Your task to perform on an android device: Go to Reddit.com Image 0: 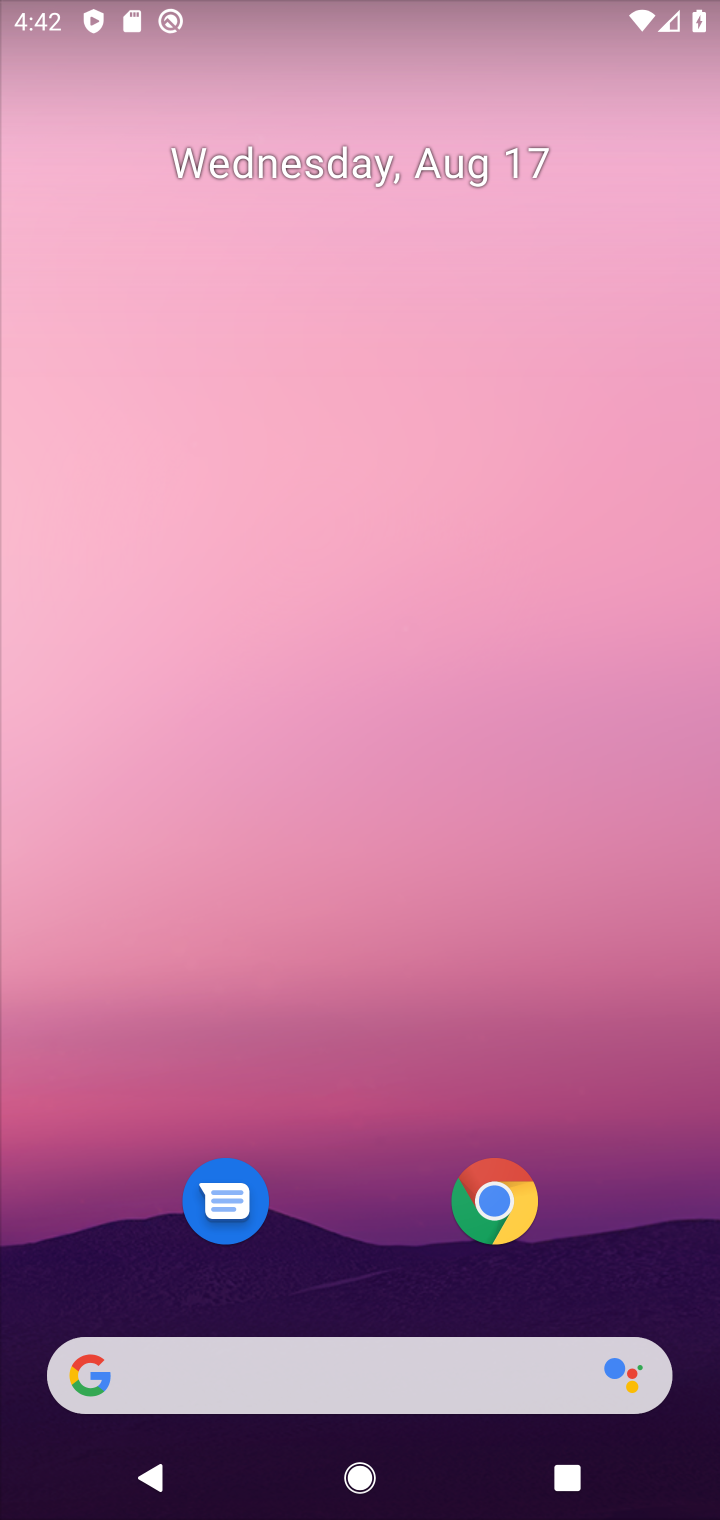
Step 0: press home button
Your task to perform on an android device: Go to Reddit.com Image 1: 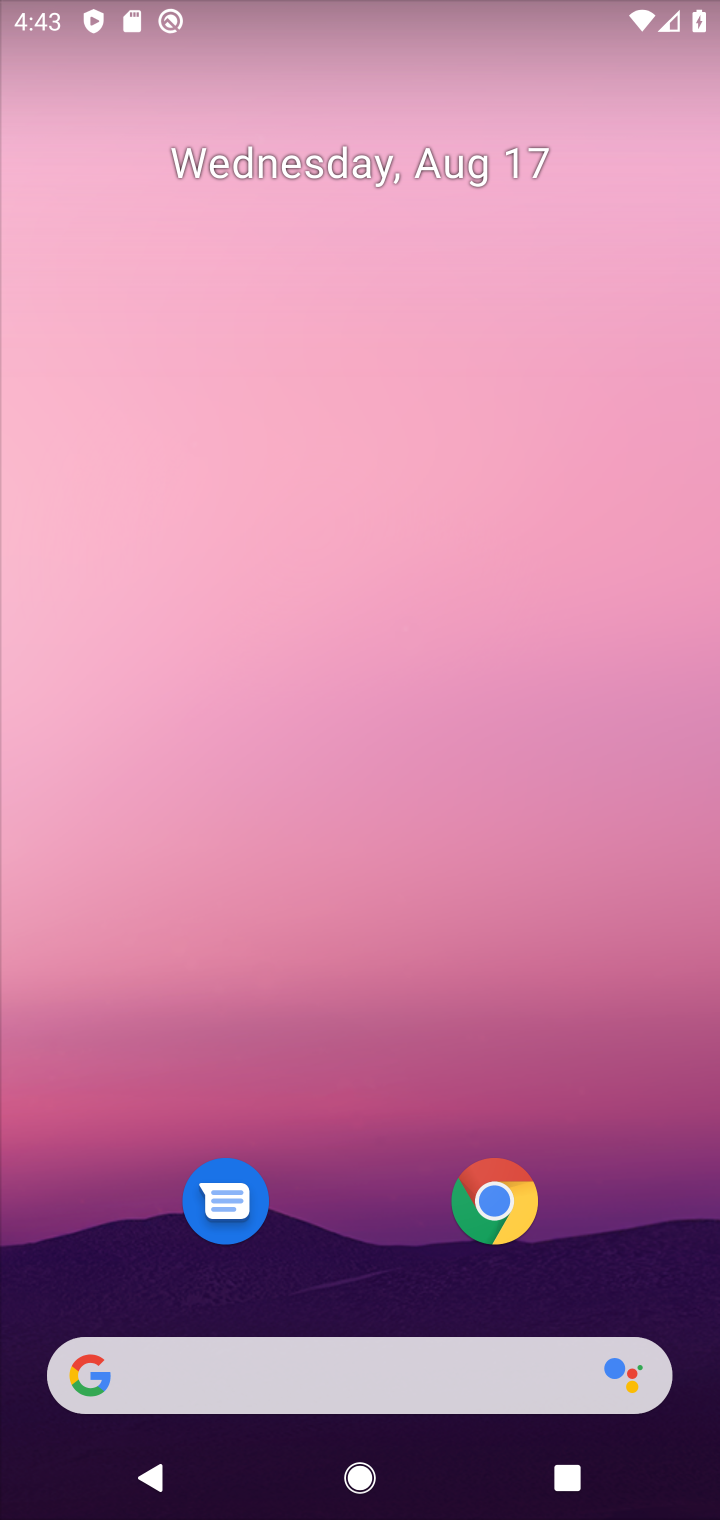
Step 1: click (99, 1373)
Your task to perform on an android device: Go to Reddit.com Image 2: 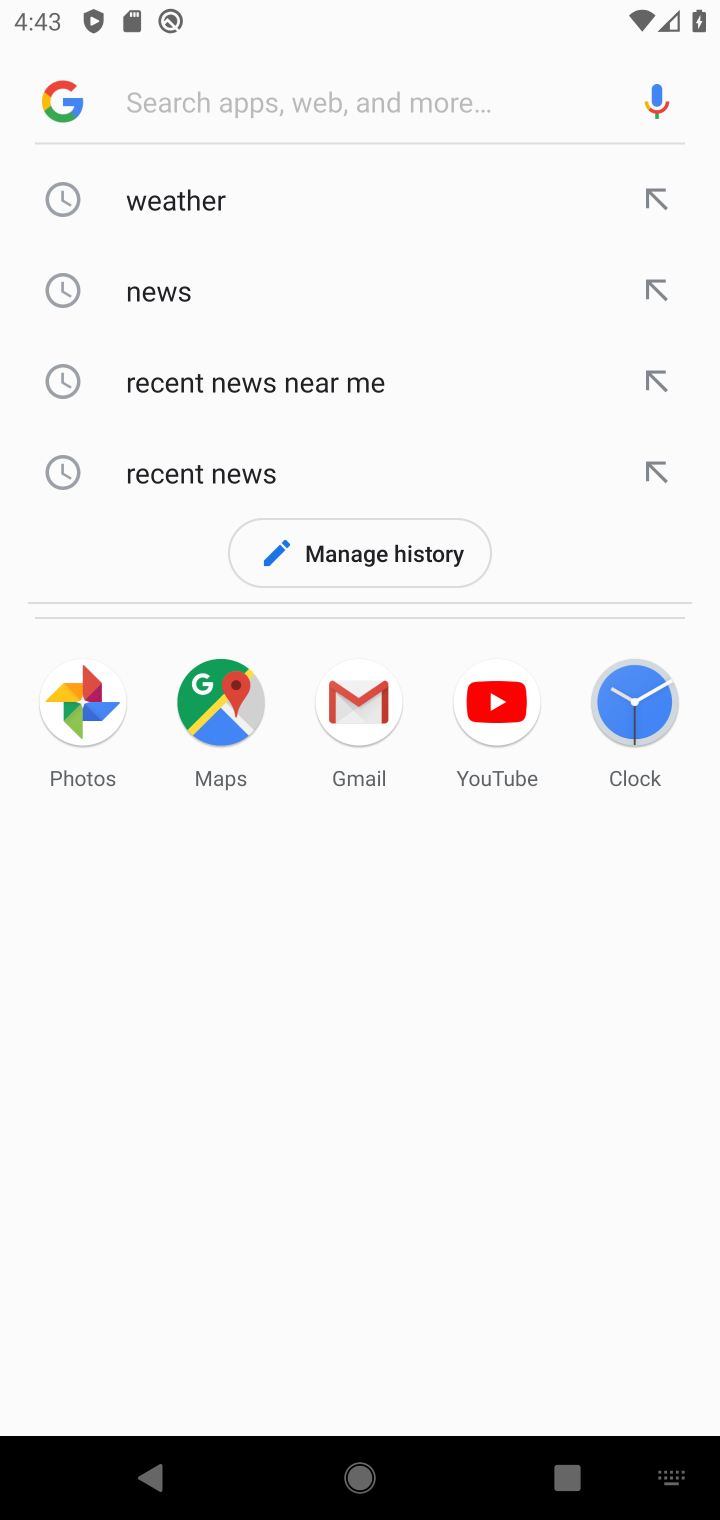
Step 2: press enter
Your task to perform on an android device: Go to Reddit.com Image 3: 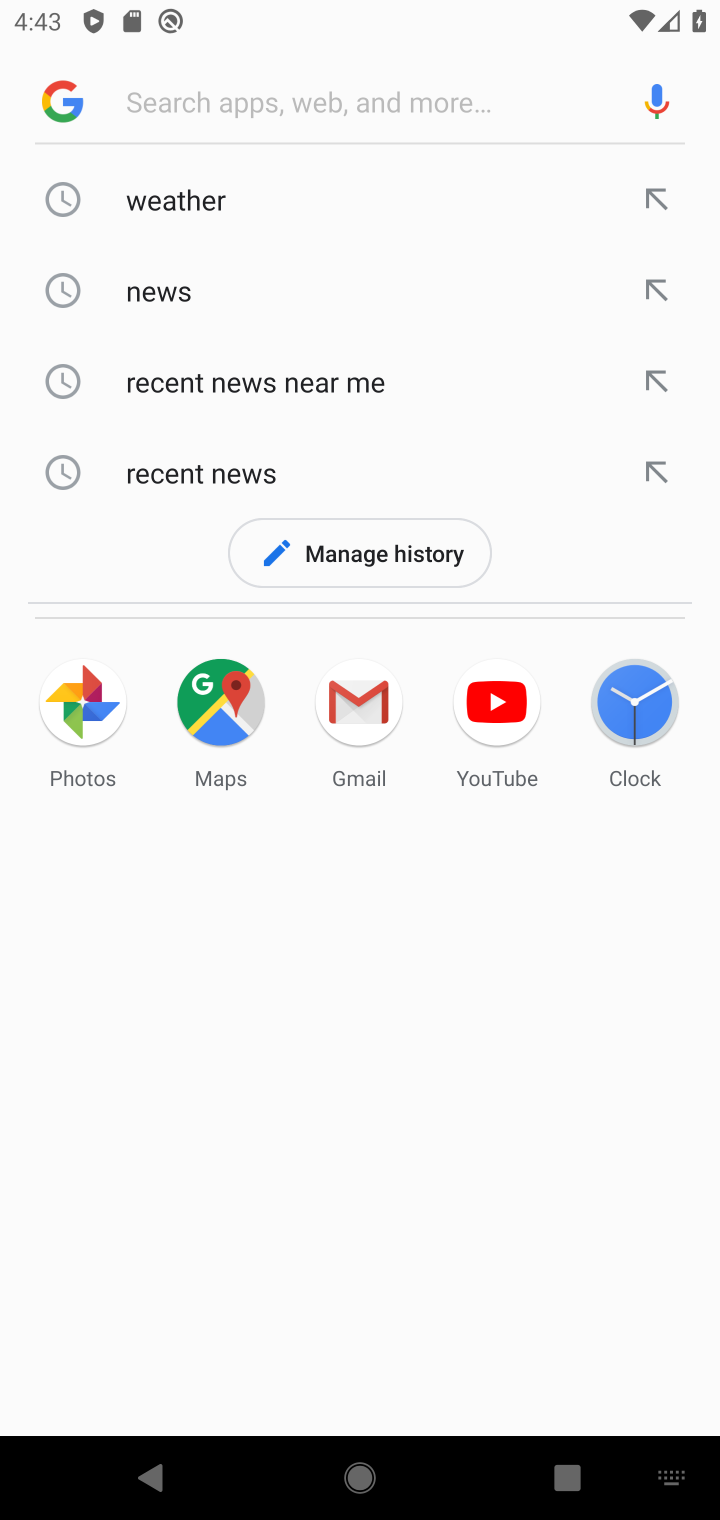
Step 3: type "Reddit.com"
Your task to perform on an android device: Go to Reddit.com Image 4: 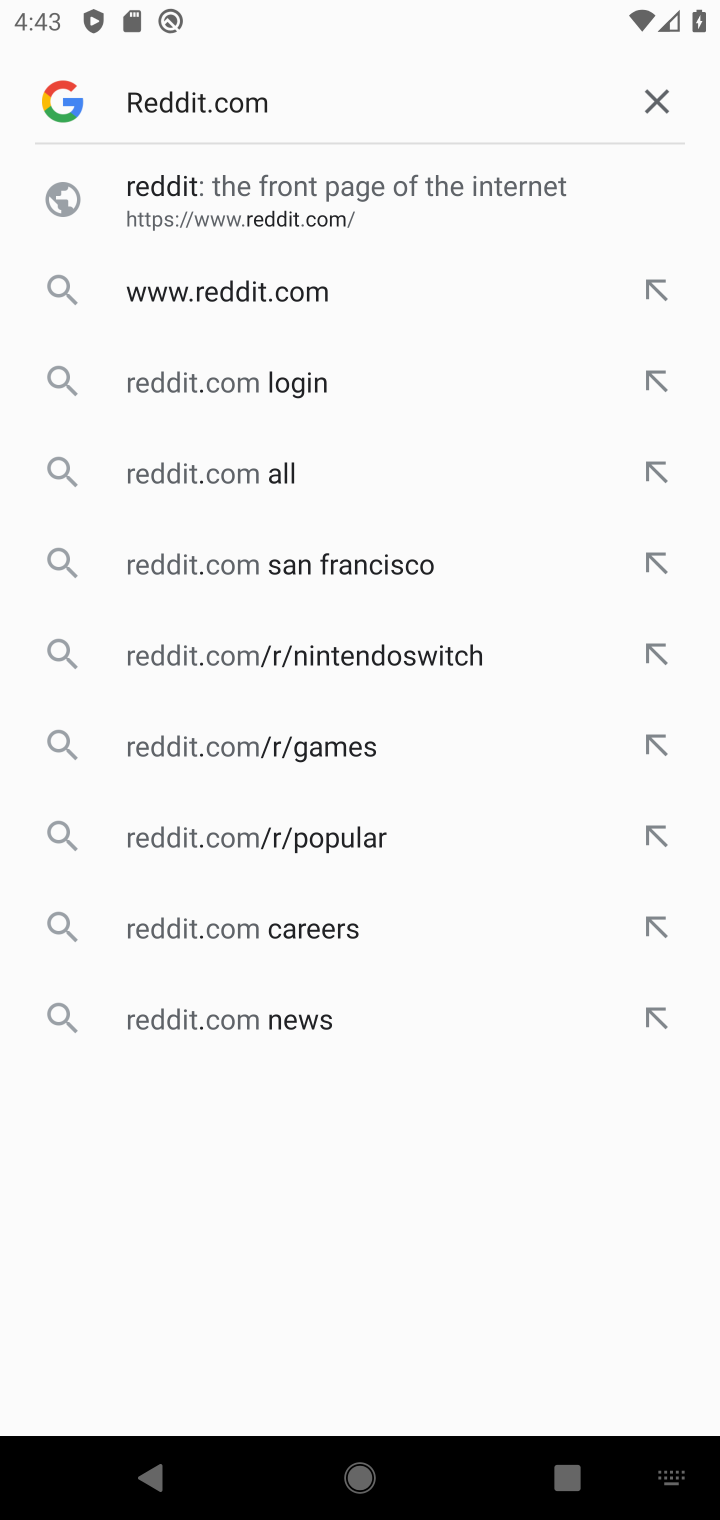
Step 4: press enter
Your task to perform on an android device: Go to Reddit.com Image 5: 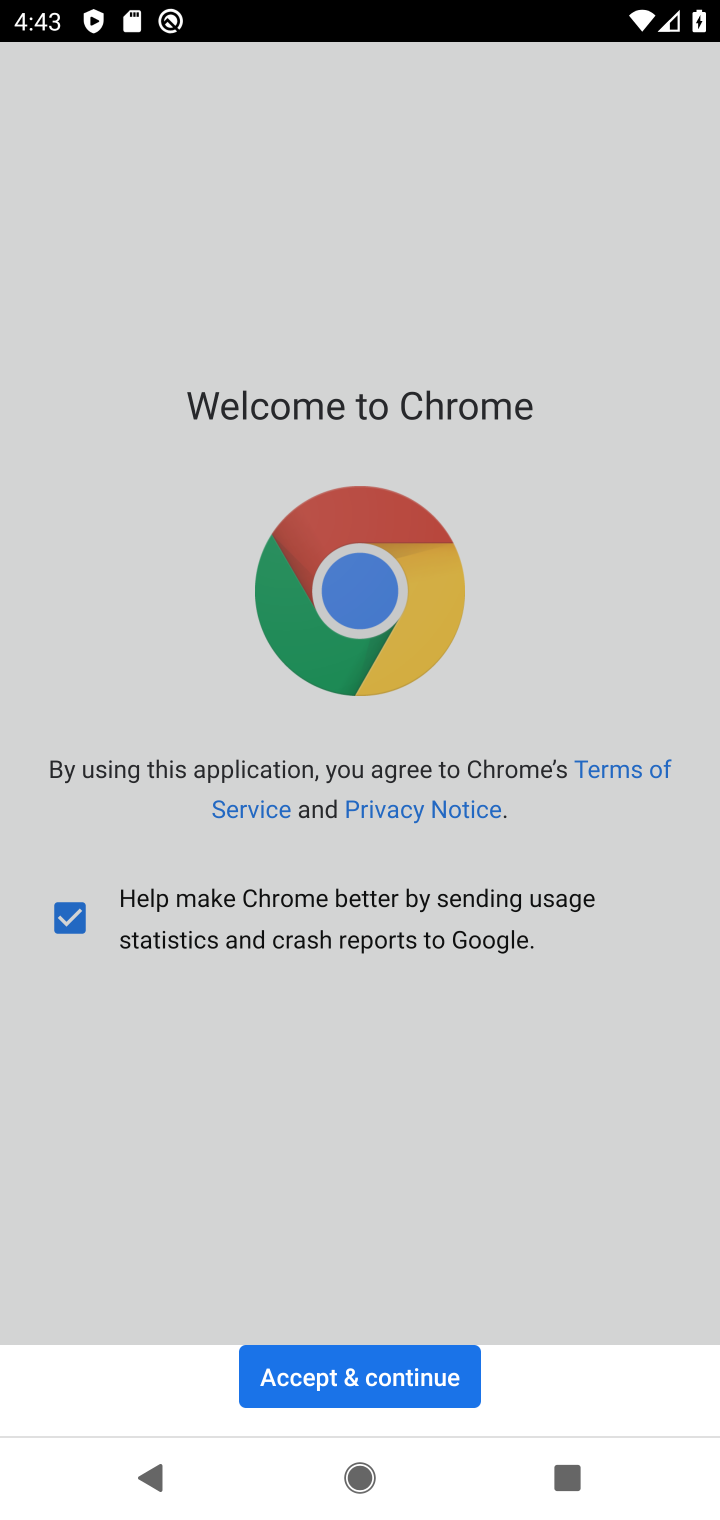
Step 5: click (377, 1384)
Your task to perform on an android device: Go to Reddit.com Image 6: 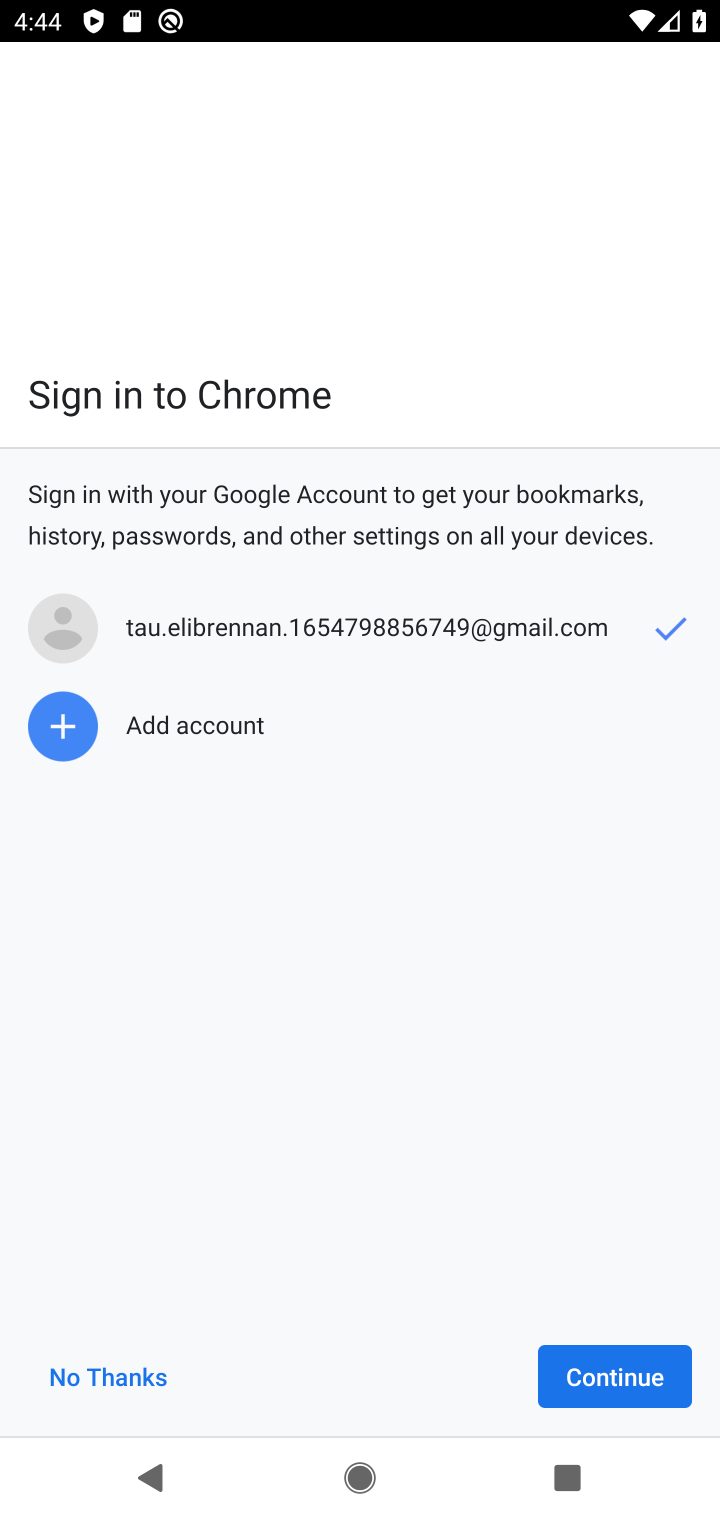
Step 6: click (600, 1397)
Your task to perform on an android device: Go to Reddit.com Image 7: 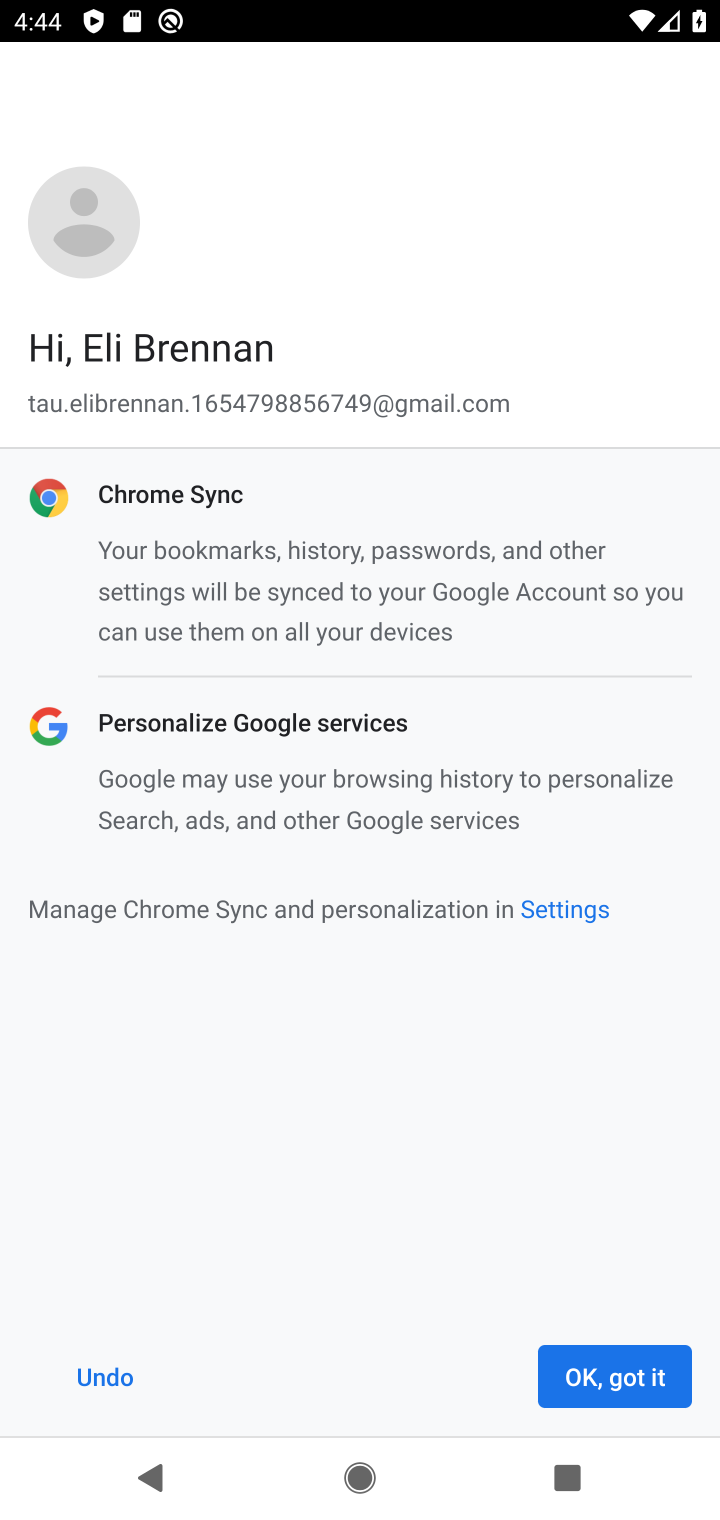
Step 7: click (598, 1398)
Your task to perform on an android device: Go to Reddit.com Image 8: 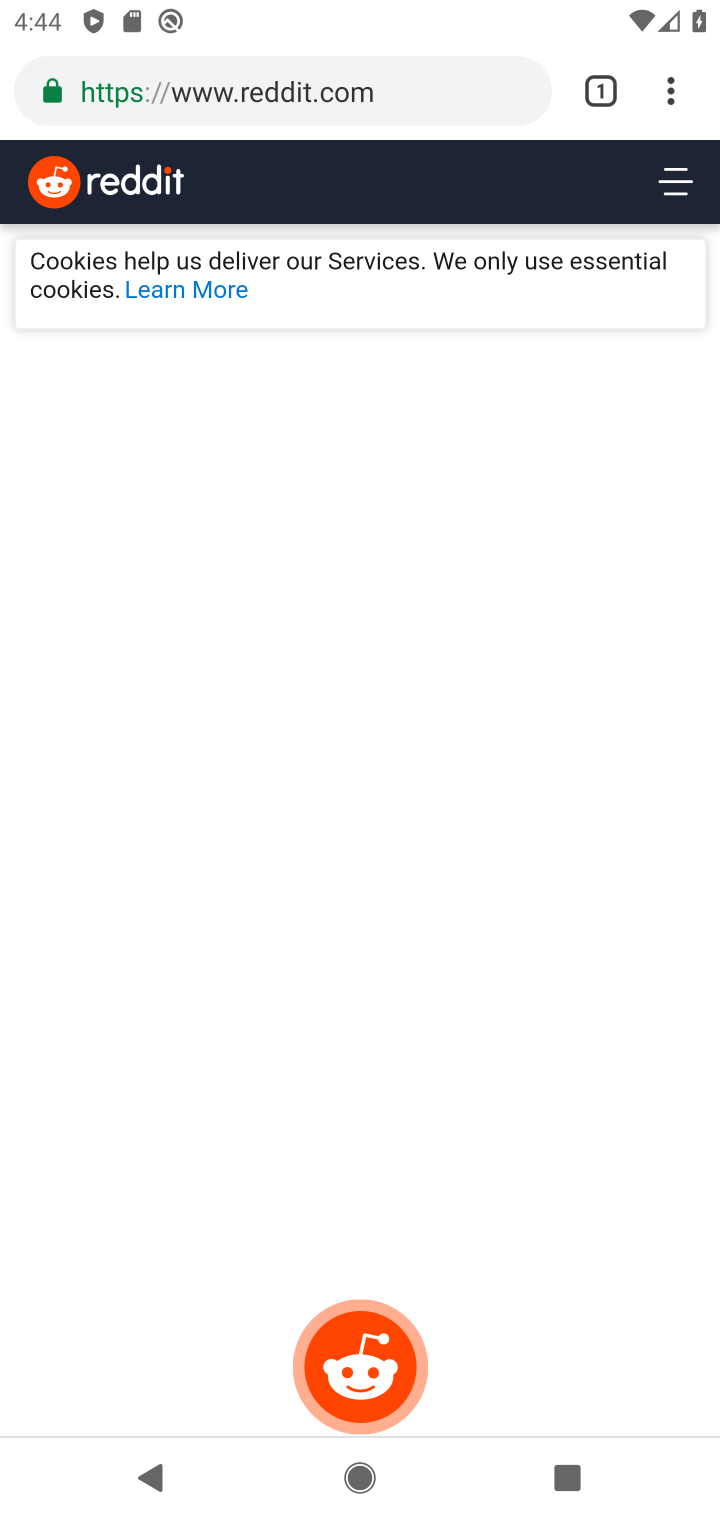
Step 8: task complete